Your task to perform on an android device: turn off notifications in google photos Image 0: 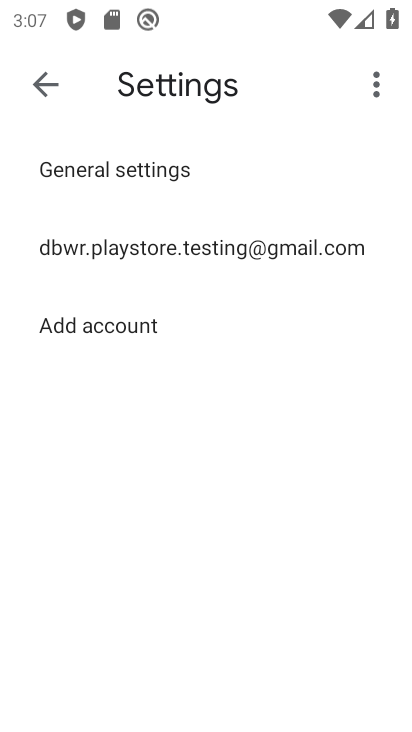
Step 0: press back button
Your task to perform on an android device: turn off notifications in google photos Image 1: 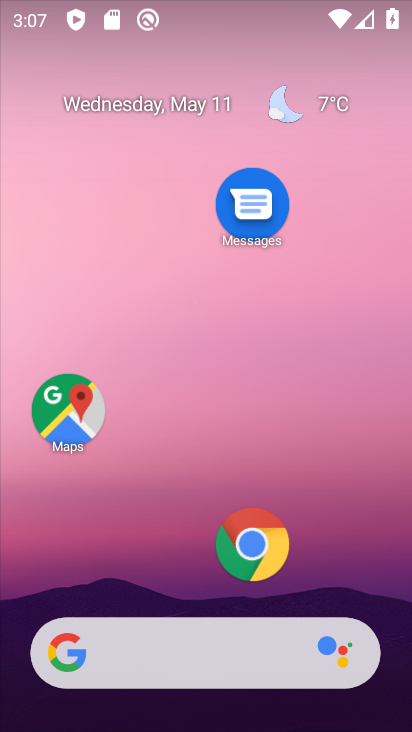
Step 1: drag from (146, 567) to (201, 109)
Your task to perform on an android device: turn off notifications in google photos Image 2: 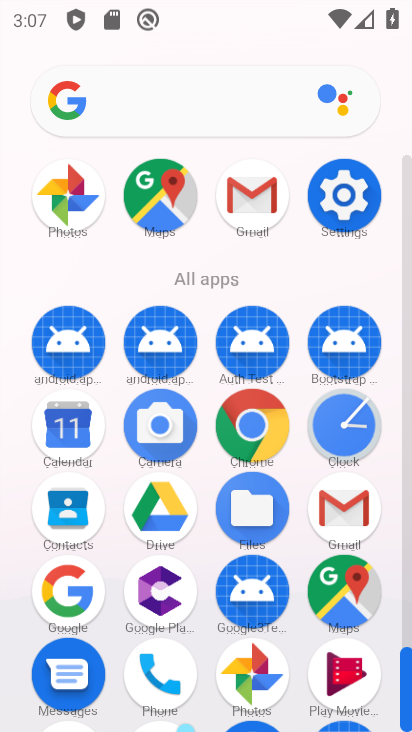
Step 2: click (238, 666)
Your task to perform on an android device: turn off notifications in google photos Image 3: 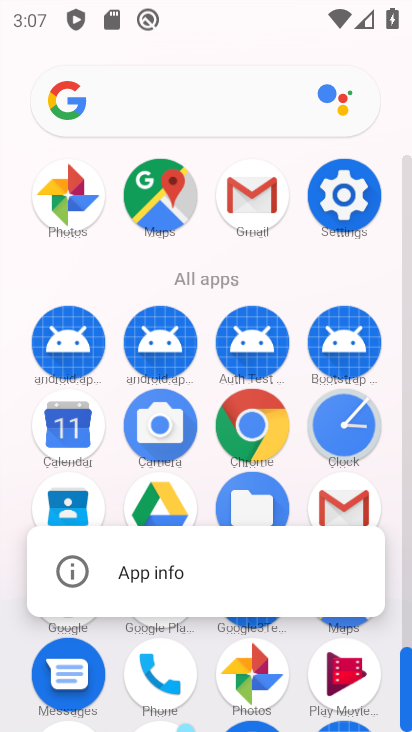
Step 3: click (69, 569)
Your task to perform on an android device: turn off notifications in google photos Image 4: 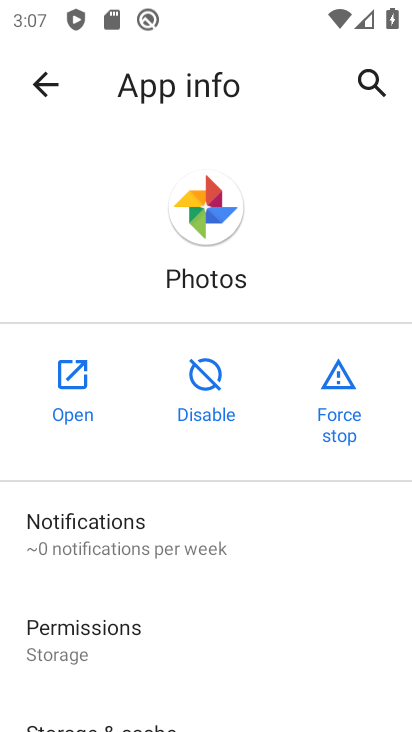
Step 4: click (161, 549)
Your task to perform on an android device: turn off notifications in google photos Image 5: 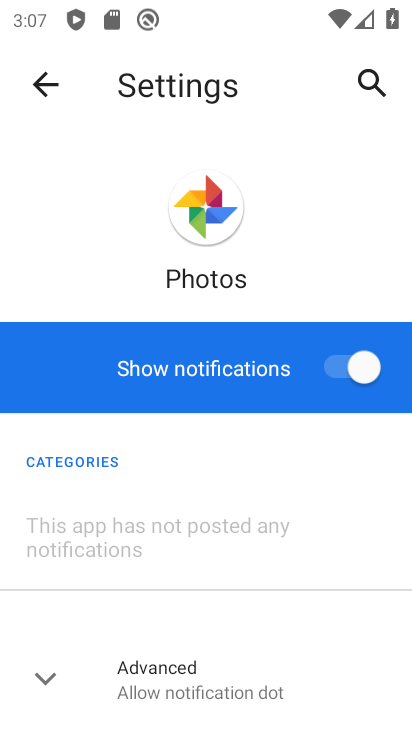
Step 5: click (347, 370)
Your task to perform on an android device: turn off notifications in google photos Image 6: 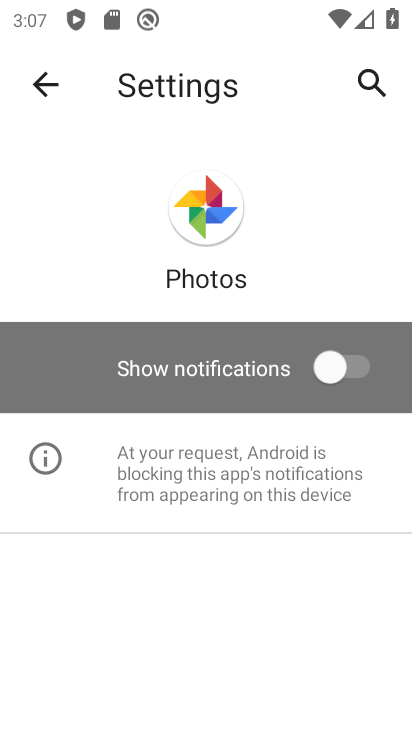
Step 6: task complete